Your task to perform on an android device: turn smart compose on in the gmail app Image 0: 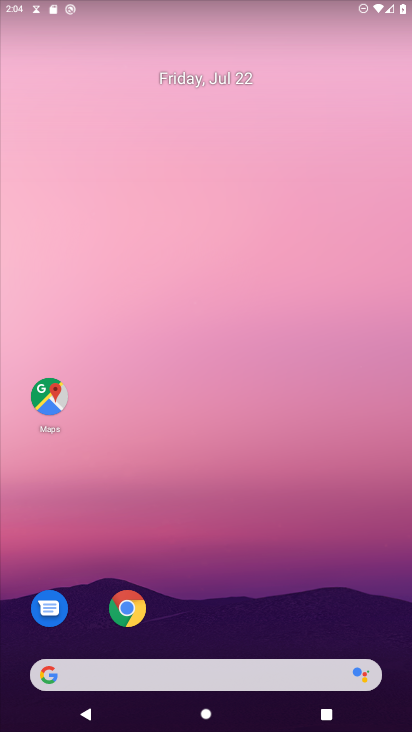
Step 0: drag from (248, 618) to (286, 203)
Your task to perform on an android device: turn smart compose on in the gmail app Image 1: 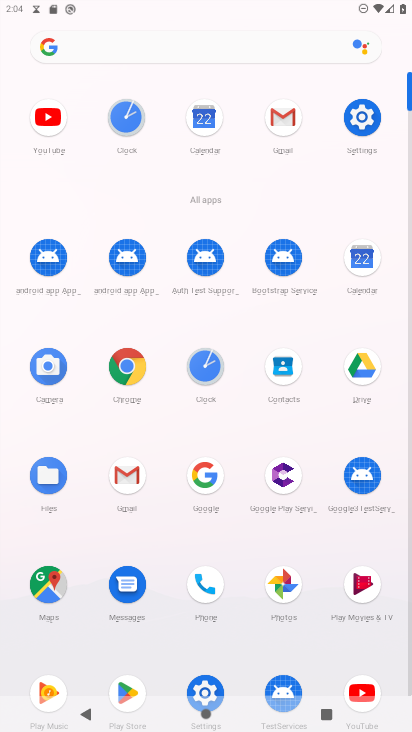
Step 1: click (293, 115)
Your task to perform on an android device: turn smart compose on in the gmail app Image 2: 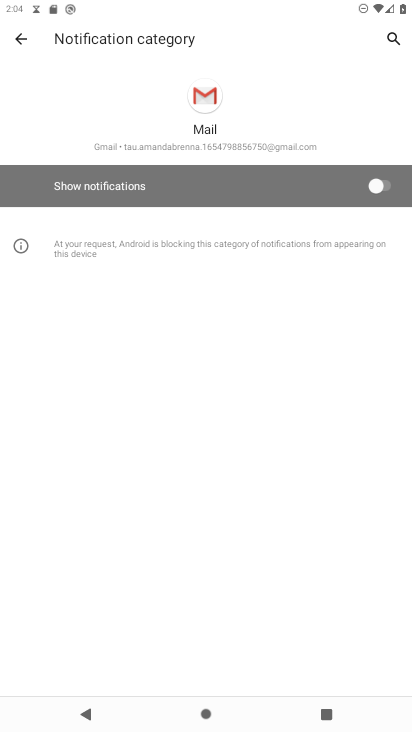
Step 2: click (25, 42)
Your task to perform on an android device: turn smart compose on in the gmail app Image 3: 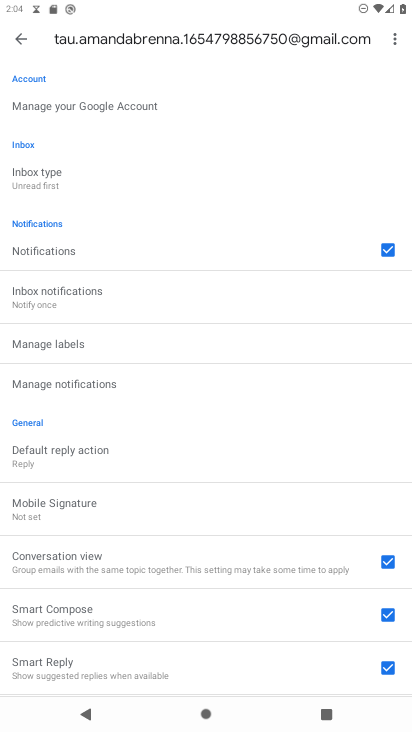
Step 3: task complete